Your task to perform on an android device: change your default location settings in chrome Image 0: 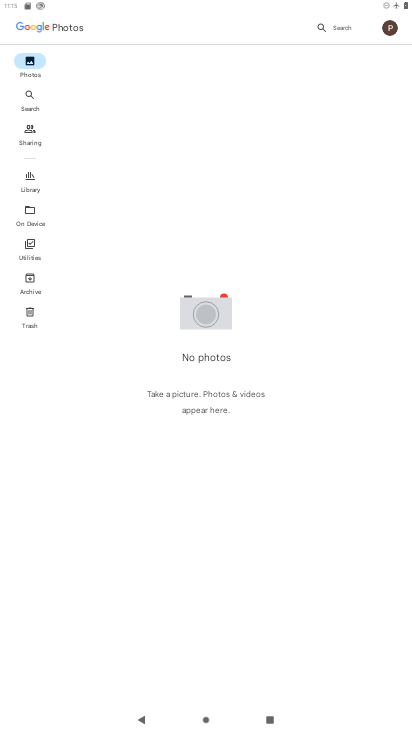
Step 0: press home button
Your task to perform on an android device: change your default location settings in chrome Image 1: 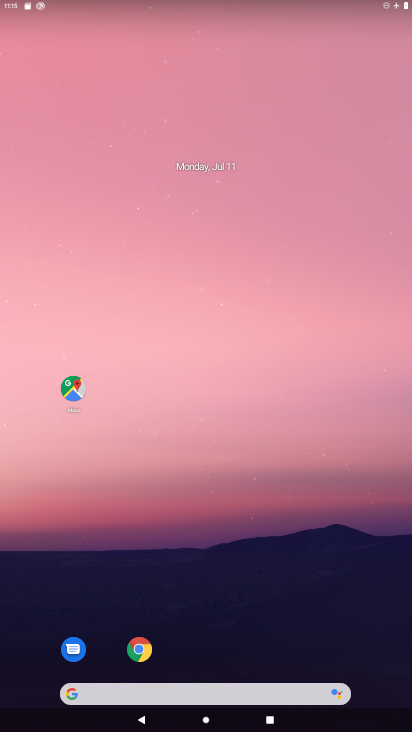
Step 1: drag from (351, 605) to (331, 0)
Your task to perform on an android device: change your default location settings in chrome Image 2: 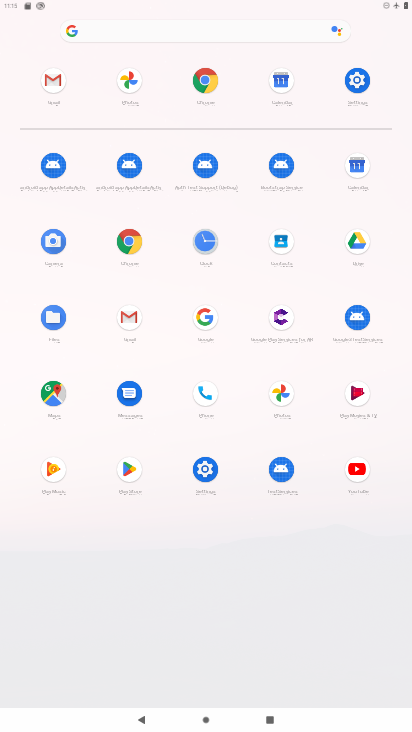
Step 2: click (131, 238)
Your task to perform on an android device: change your default location settings in chrome Image 3: 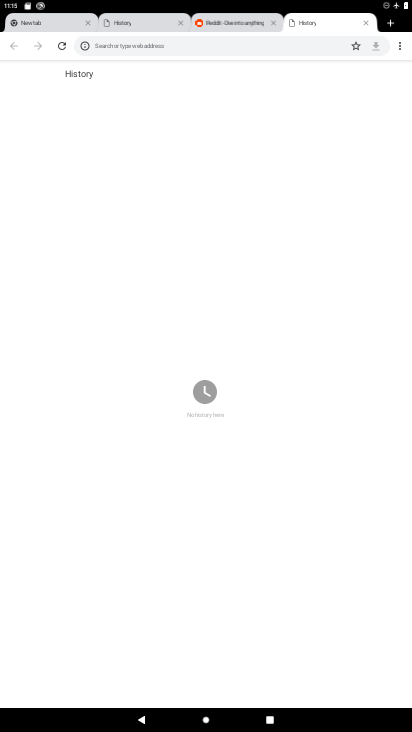
Step 3: drag from (404, 42) to (297, 212)
Your task to perform on an android device: change your default location settings in chrome Image 4: 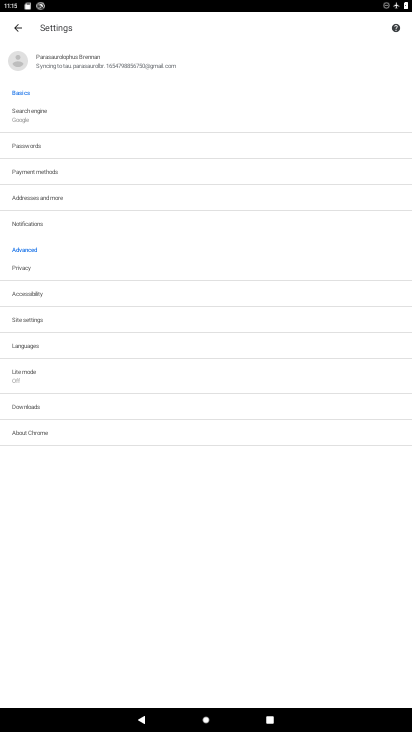
Step 4: click (46, 317)
Your task to perform on an android device: change your default location settings in chrome Image 5: 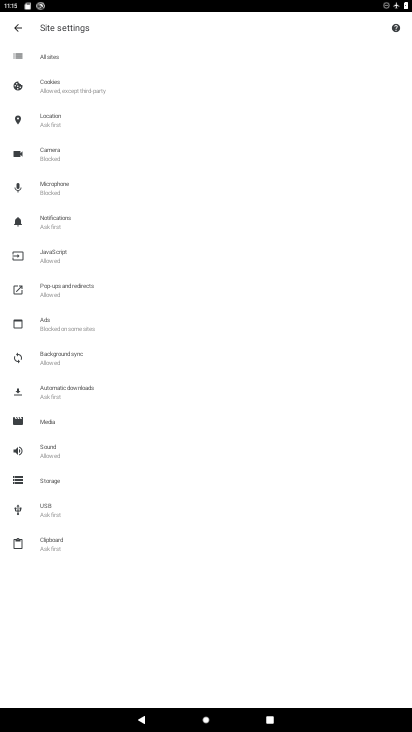
Step 5: click (52, 123)
Your task to perform on an android device: change your default location settings in chrome Image 6: 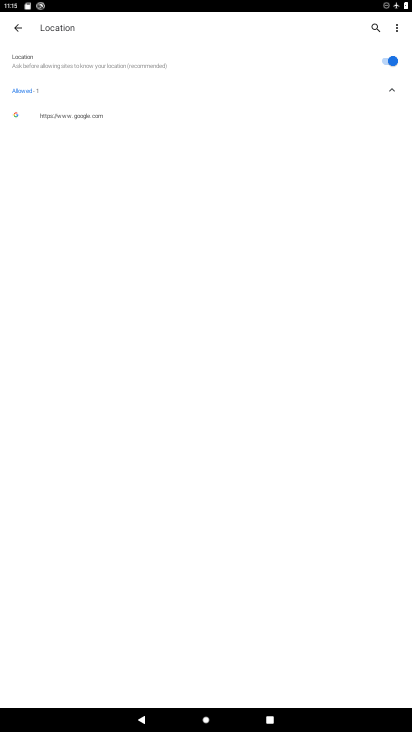
Step 6: click (389, 57)
Your task to perform on an android device: change your default location settings in chrome Image 7: 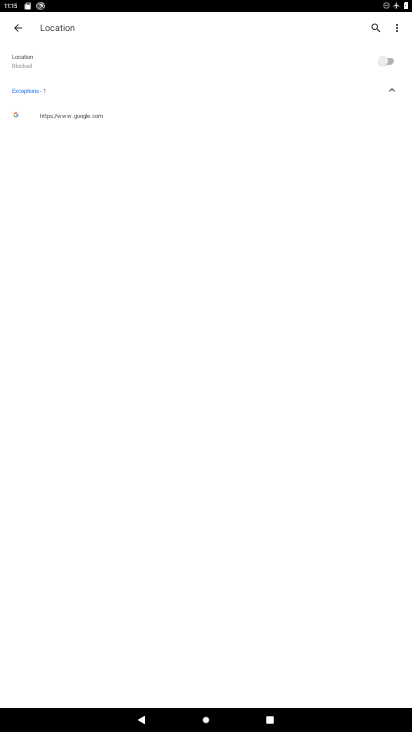
Step 7: task complete